Your task to perform on an android device: What is the recent news? Image 0: 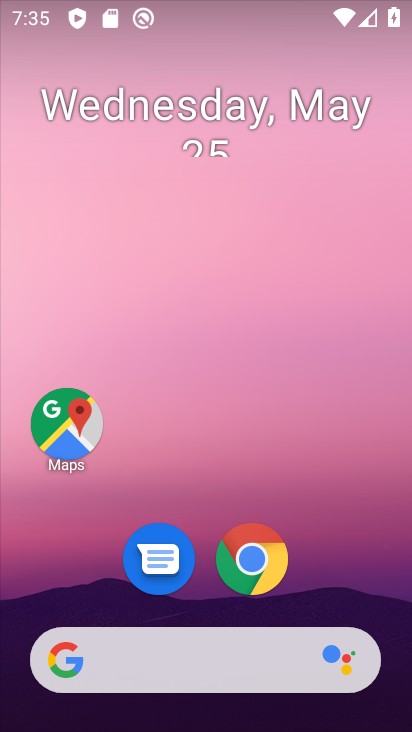
Step 0: drag from (186, 556) to (214, 143)
Your task to perform on an android device: What is the recent news? Image 1: 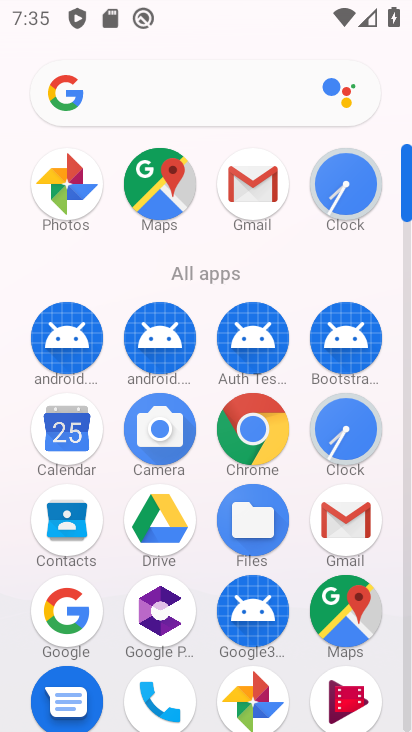
Step 1: click (75, 620)
Your task to perform on an android device: What is the recent news? Image 2: 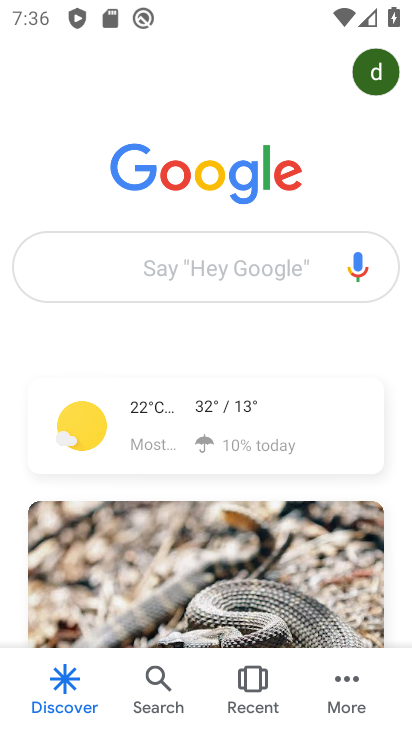
Step 2: click (230, 267)
Your task to perform on an android device: What is the recent news? Image 3: 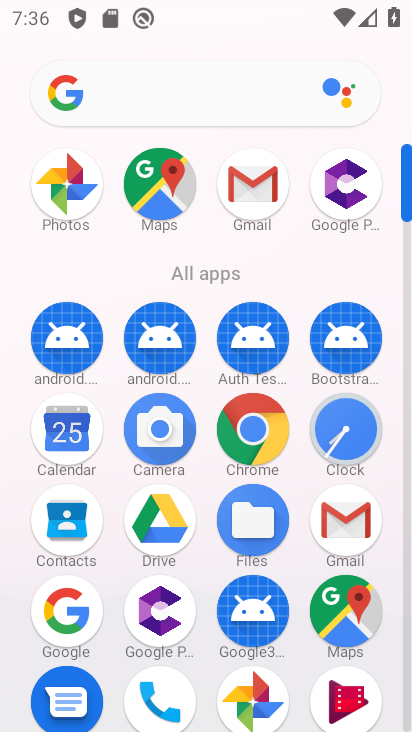
Step 3: click (68, 620)
Your task to perform on an android device: What is the recent news? Image 4: 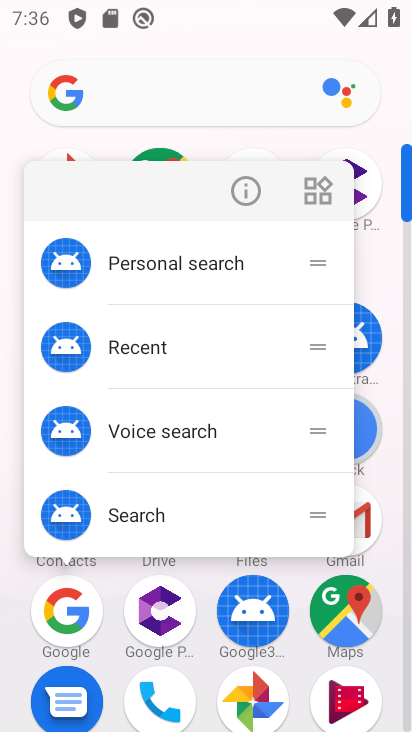
Step 4: click (70, 623)
Your task to perform on an android device: What is the recent news? Image 5: 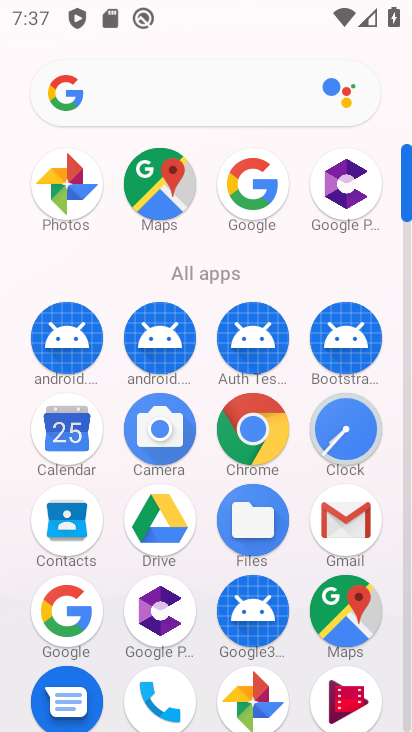
Step 5: click (71, 623)
Your task to perform on an android device: What is the recent news? Image 6: 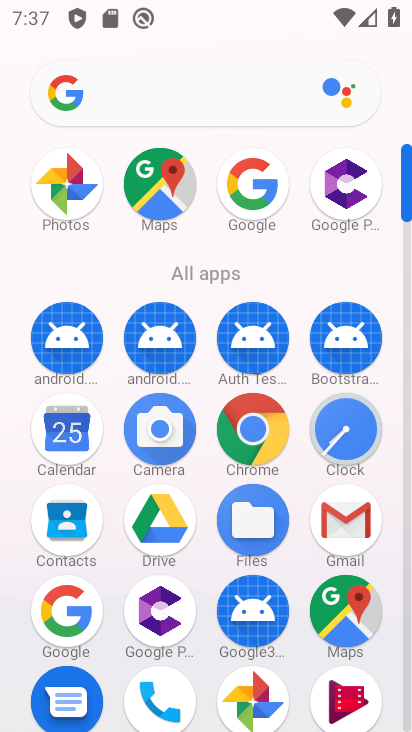
Step 6: click (71, 623)
Your task to perform on an android device: What is the recent news? Image 7: 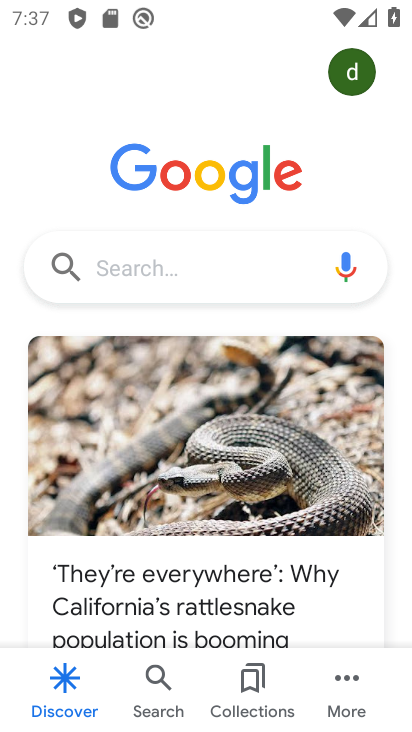
Step 7: click (258, 267)
Your task to perform on an android device: What is the recent news? Image 8: 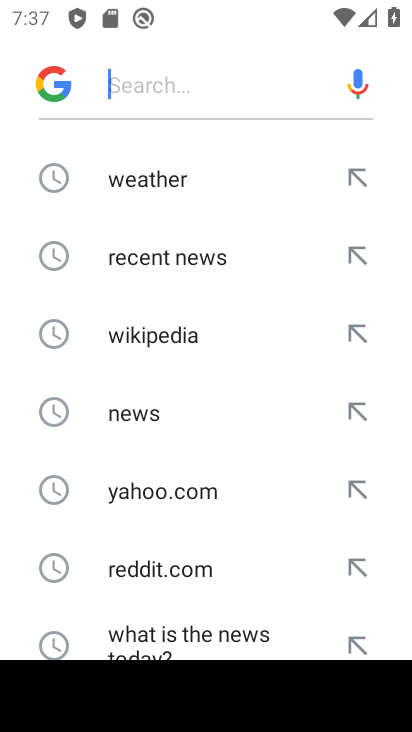
Step 8: click (227, 249)
Your task to perform on an android device: What is the recent news? Image 9: 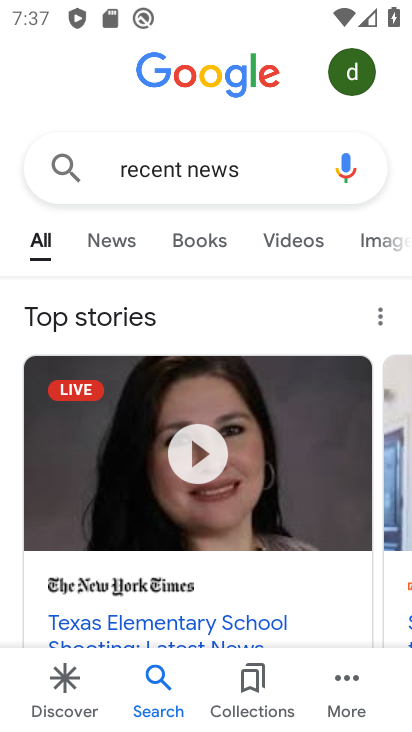
Step 9: click (110, 238)
Your task to perform on an android device: What is the recent news? Image 10: 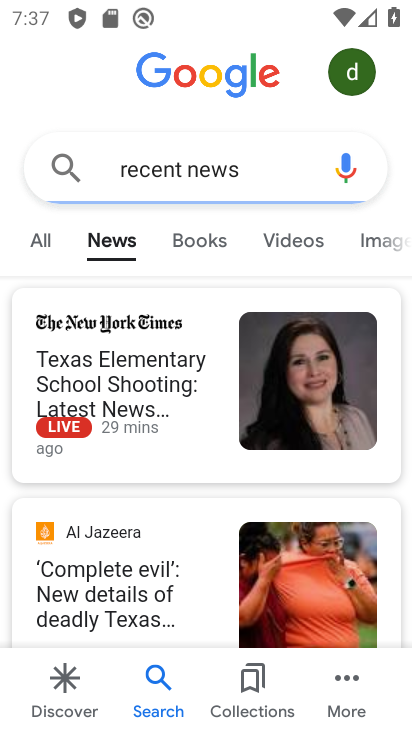
Step 10: task complete